Your task to perform on an android device: turn off location history Image 0: 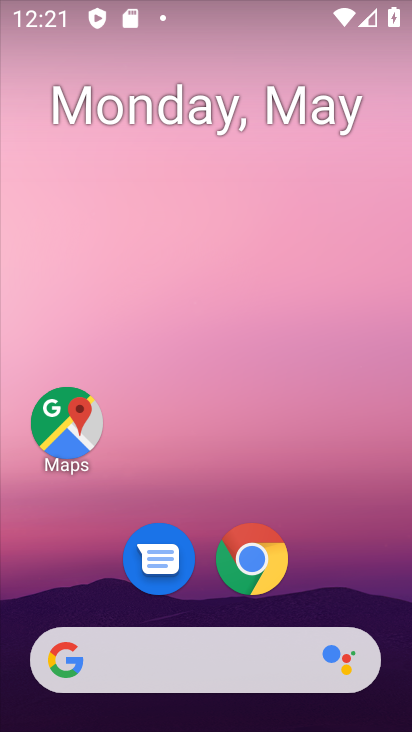
Step 0: drag from (188, 657) to (261, 116)
Your task to perform on an android device: turn off location history Image 1: 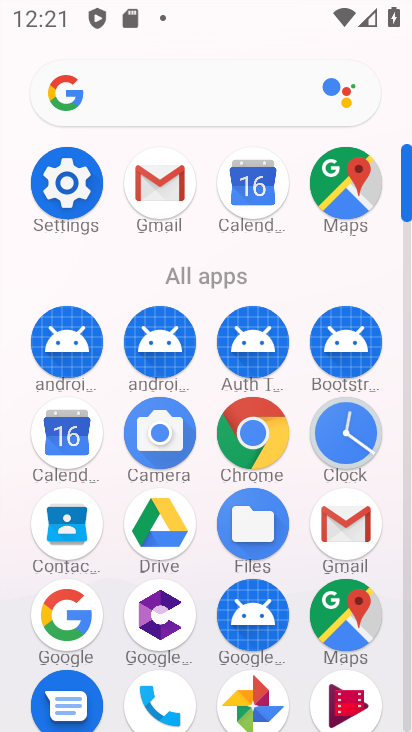
Step 1: click (344, 193)
Your task to perform on an android device: turn off location history Image 2: 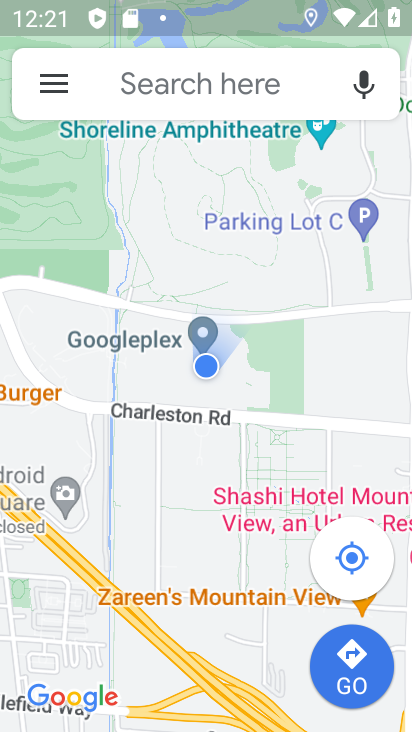
Step 2: click (61, 97)
Your task to perform on an android device: turn off location history Image 3: 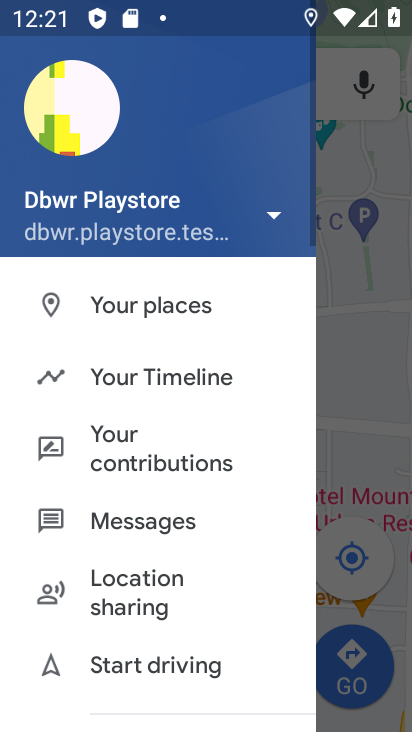
Step 3: drag from (141, 631) to (187, 88)
Your task to perform on an android device: turn off location history Image 4: 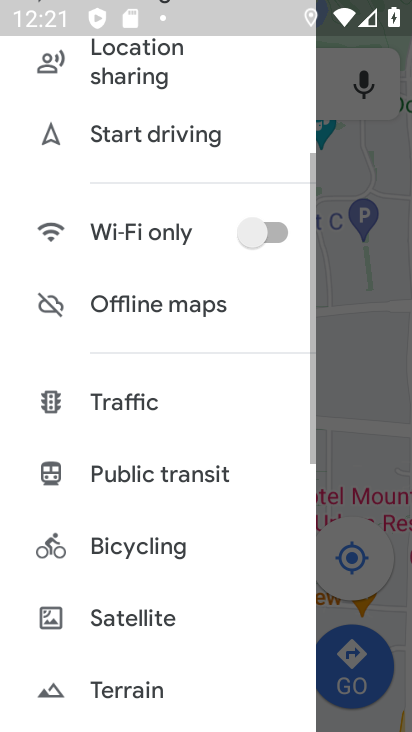
Step 4: drag from (210, 639) to (245, 1)
Your task to perform on an android device: turn off location history Image 5: 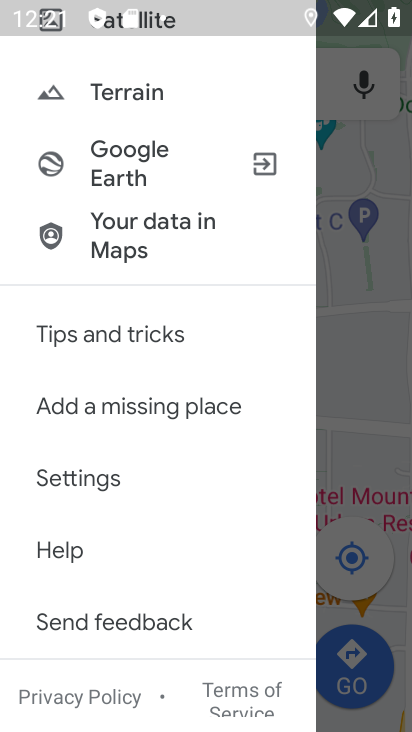
Step 5: click (119, 477)
Your task to perform on an android device: turn off location history Image 6: 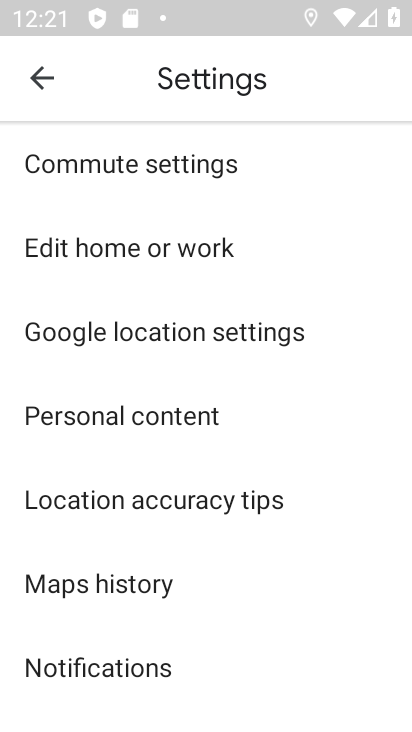
Step 6: click (186, 323)
Your task to perform on an android device: turn off location history Image 7: 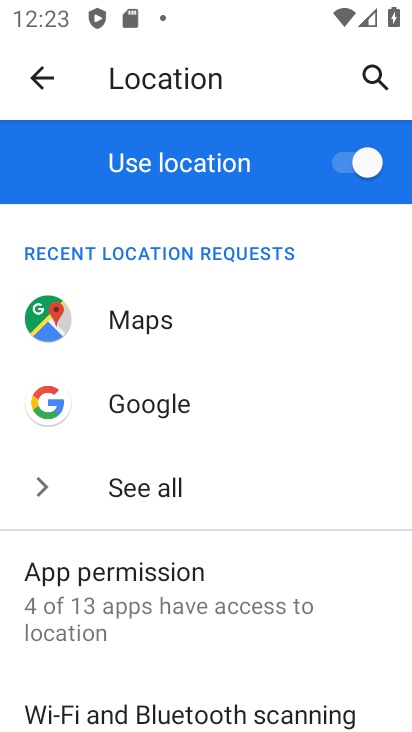
Step 7: click (362, 167)
Your task to perform on an android device: turn off location history Image 8: 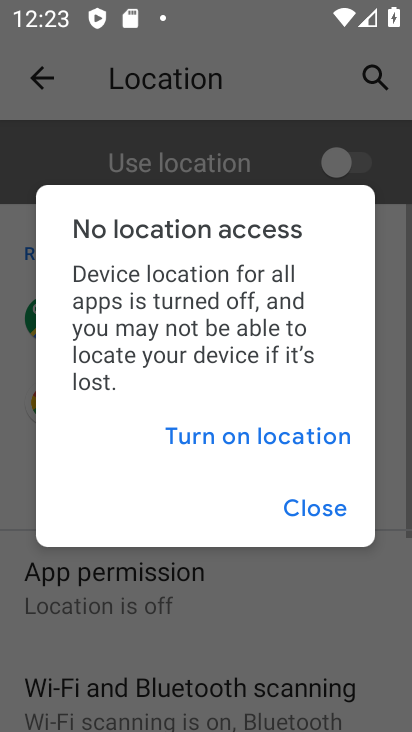
Step 8: task complete